Your task to perform on an android device: Open wifi settings Image 0: 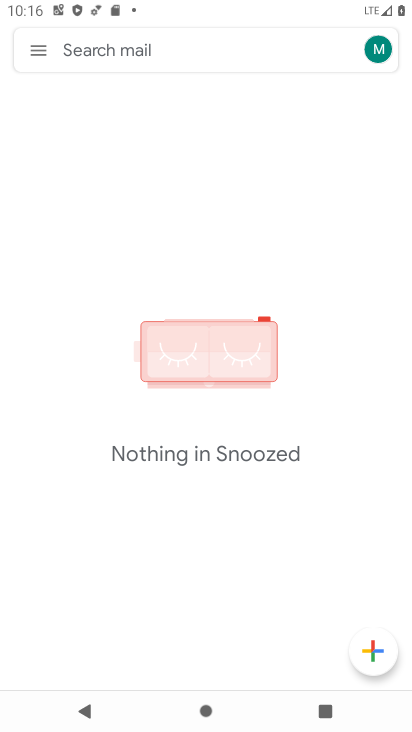
Step 0: press home button
Your task to perform on an android device: Open wifi settings Image 1: 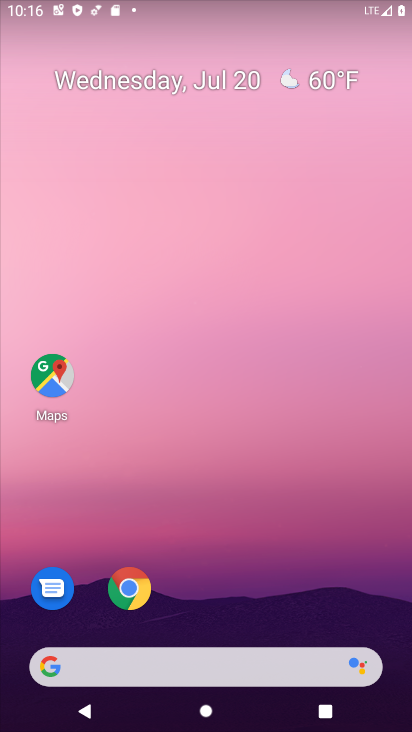
Step 1: drag from (170, 556) to (233, 23)
Your task to perform on an android device: Open wifi settings Image 2: 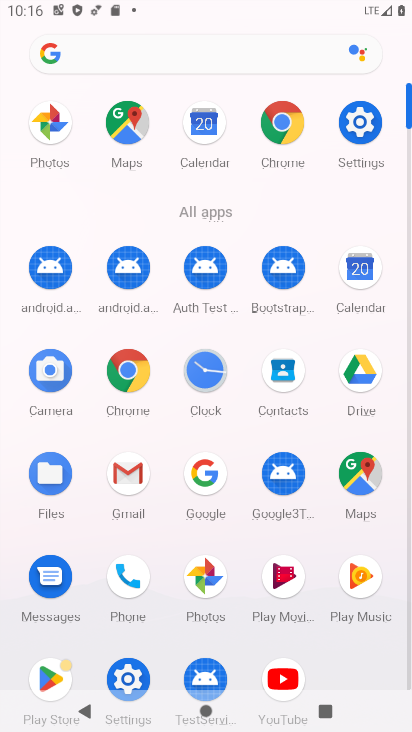
Step 2: click (371, 146)
Your task to perform on an android device: Open wifi settings Image 3: 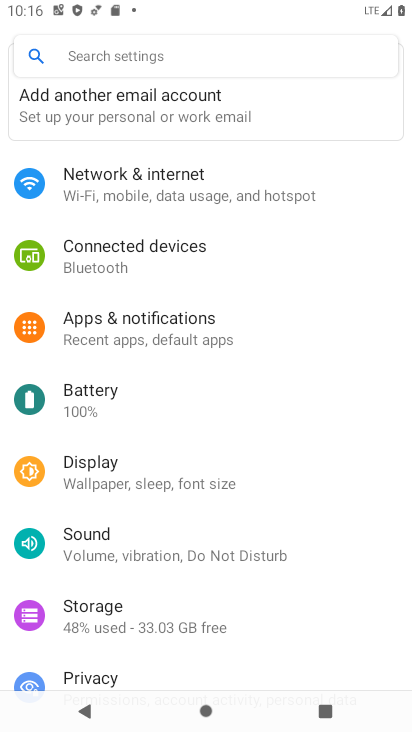
Step 3: click (138, 196)
Your task to perform on an android device: Open wifi settings Image 4: 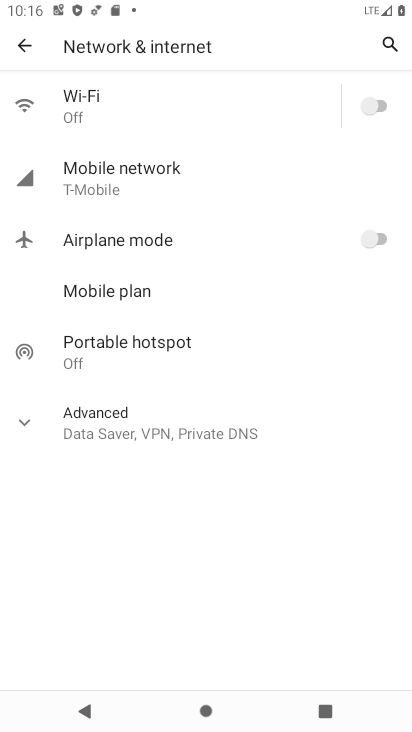
Step 4: click (188, 112)
Your task to perform on an android device: Open wifi settings Image 5: 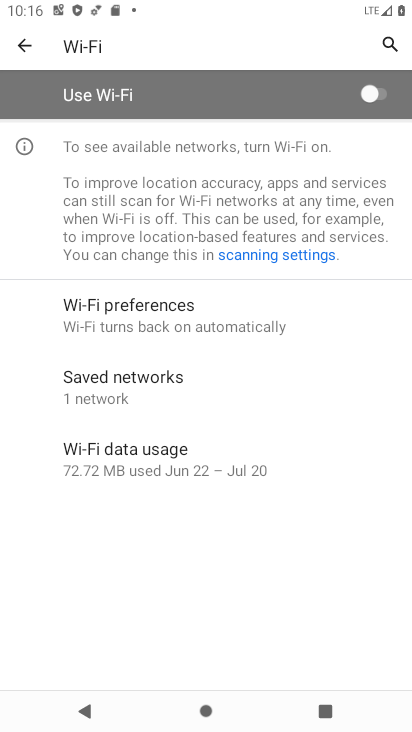
Step 5: task complete